Your task to perform on an android device: What's the weather? Image 0: 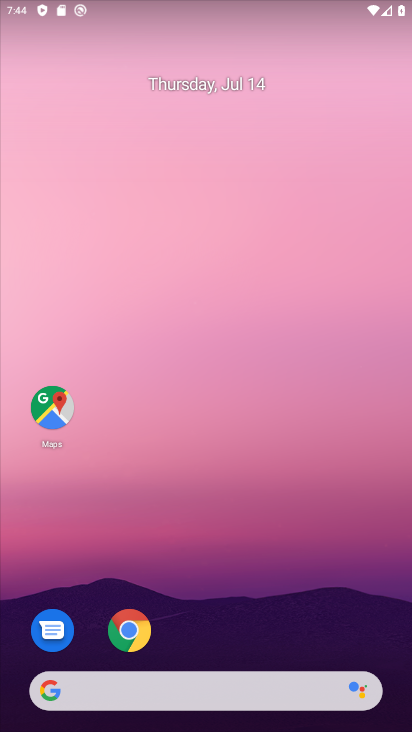
Step 0: drag from (223, 670) to (145, 117)
Your task to perform on an android device: What's the weather? Image 1: 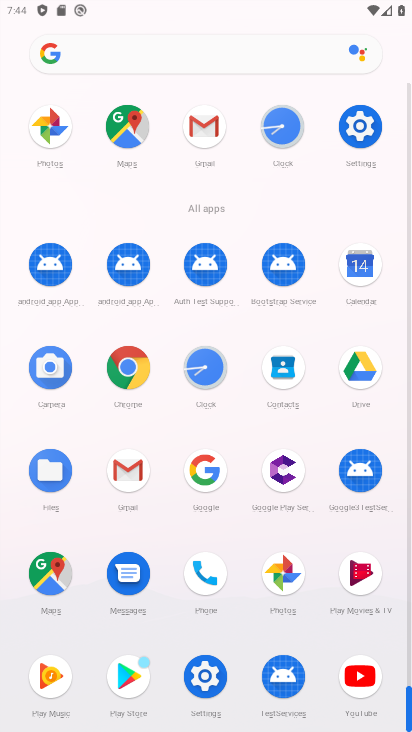
Step 1: click (122, 373)
Your task to perform on an android device: What's the weather? Image 2: 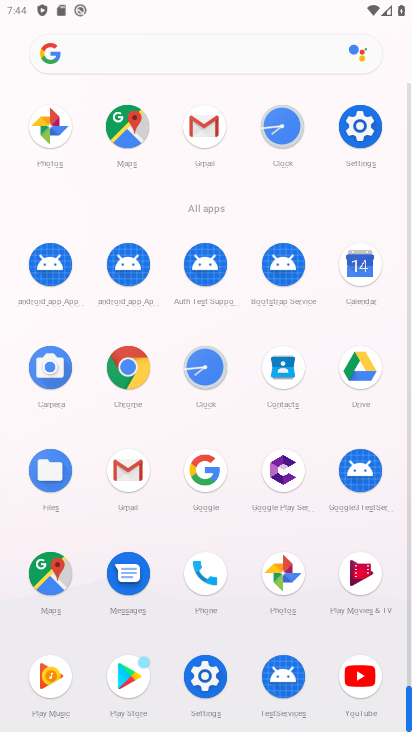
Step 2: click (130, 375)
Your task to perform on an android device: What's the weather? Image 3: 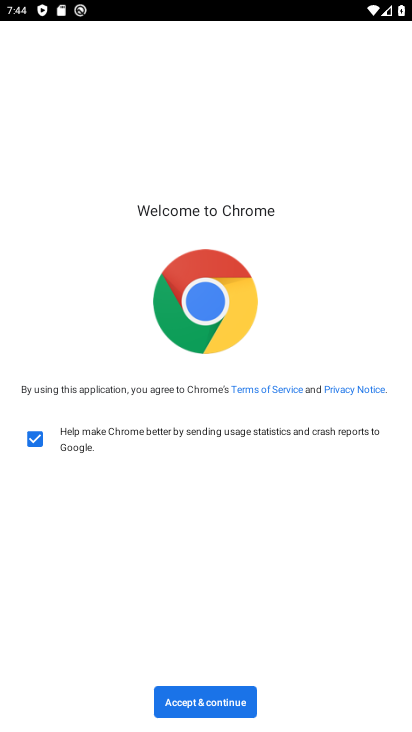
Step 3: click (219, 701)
Your task to perform on an android device: What's the weather? Image 4: 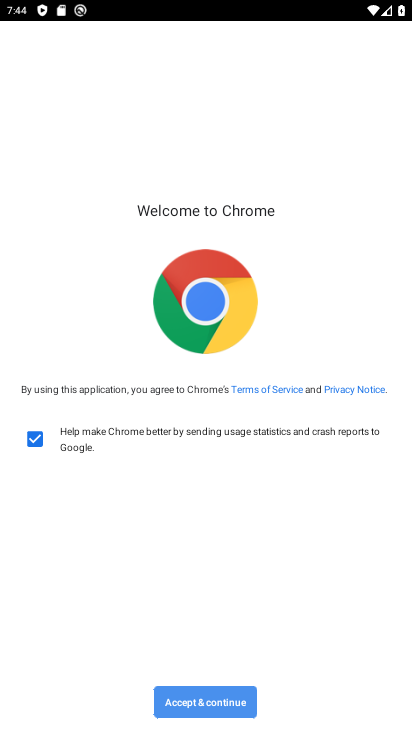
Step 4: click (227, 708)
Your task to perform on an android device: What's the weather? Image 5: 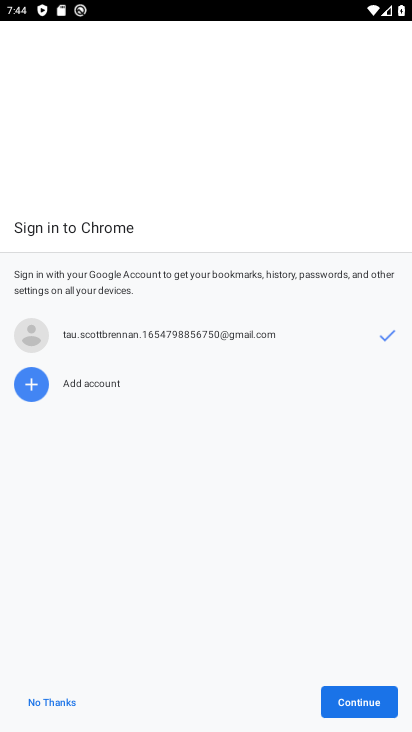
Step 5: click (227, 708)
Your task to perform on an android device: What's the weather? Image 6: 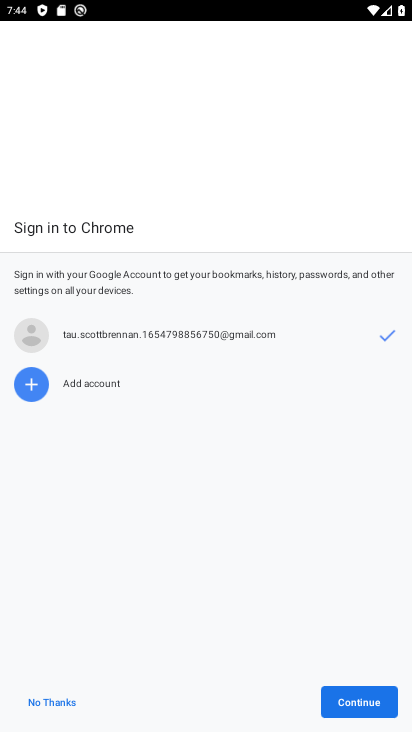
Step 6: click (359, 702)
Your task to perform on an android device: What's the weather? Image 7: 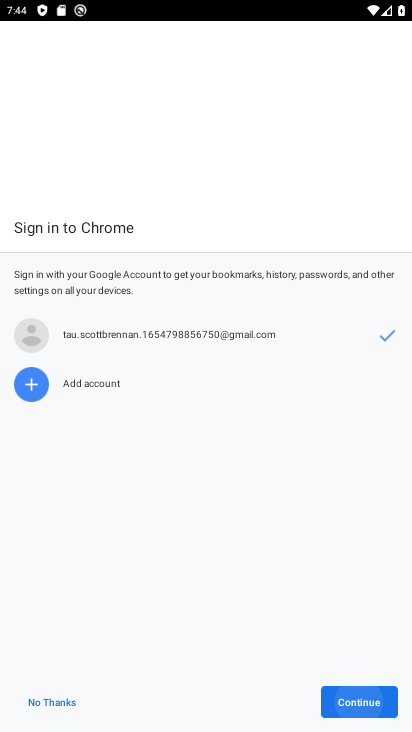
Step 7: click (360, 702)
Your task to perform on an android device: What's the weather? Image 8: 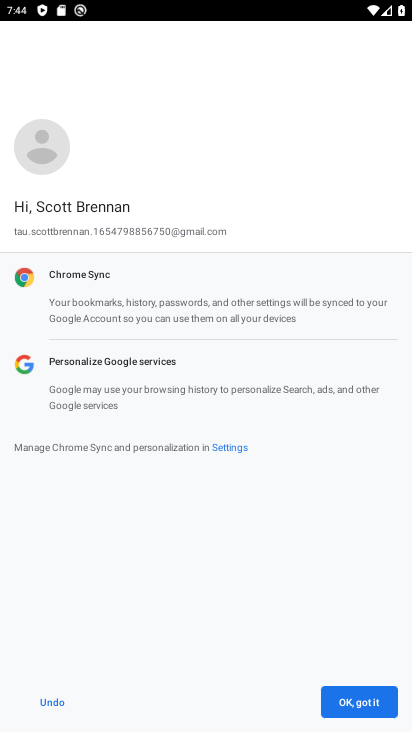
Step 8: click (360, 702)
Your task to perform on an android device: What's the weather? Image 9: 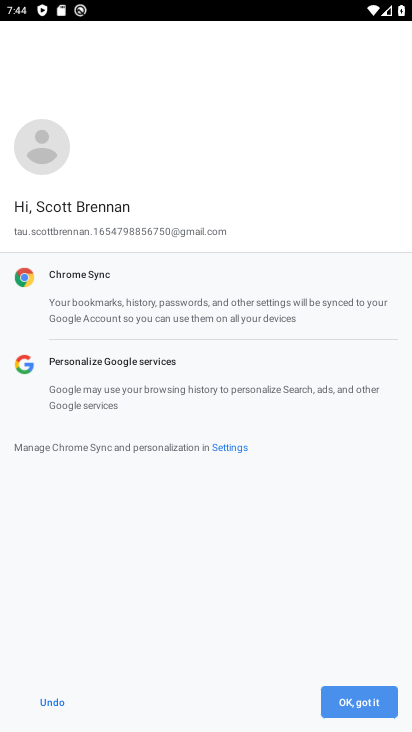
Step 9: click (361, 702)
Your task to perform on an android device: What's the weather? Image 10: 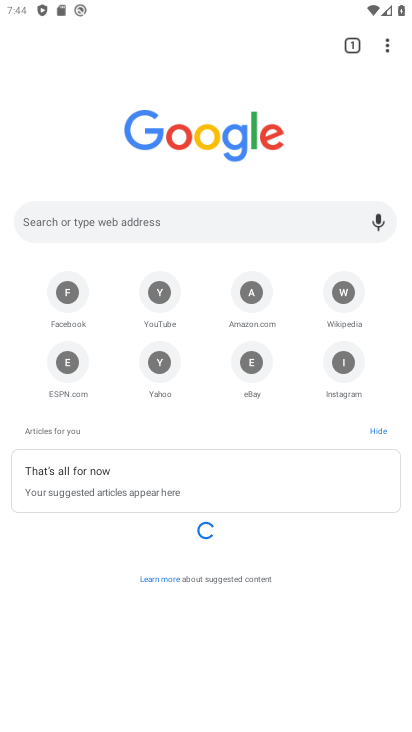
Step 10: click (157, 218)
Your task to perform on an android device: What's the weather? Image 11: 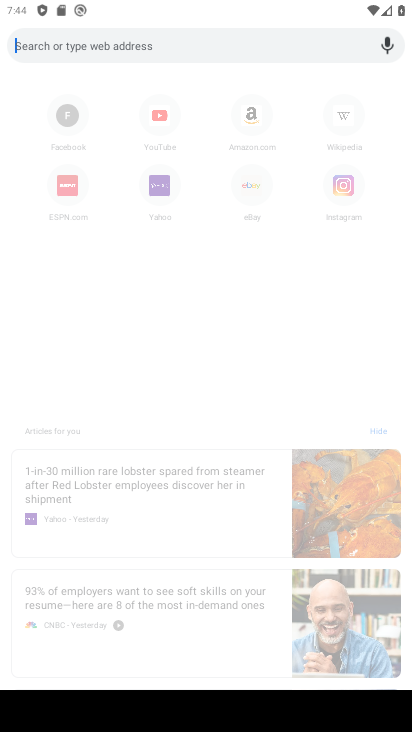
Step 11: type "weather today"
Your task to perform on an android device: What's the weather? Image 12: 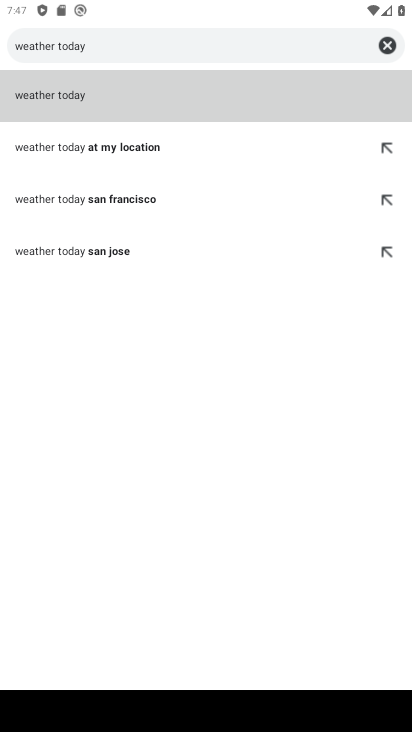
Step 12: click (164, 75)
Your task to perform on an android device: What's the weather? Image 13: 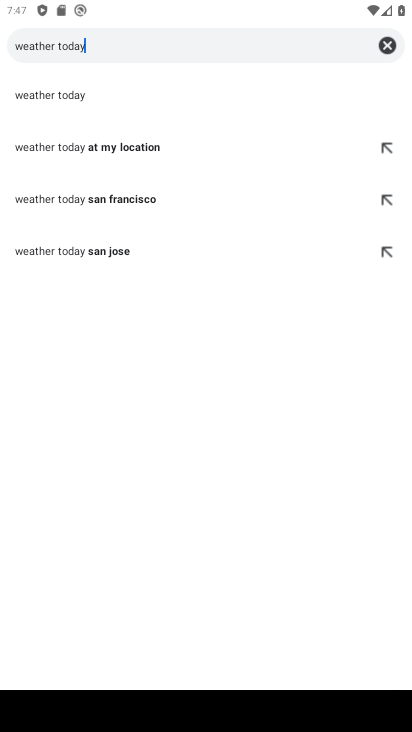
Step 13: click (164, 93)
Your task to perform on an android device: What's the weather? Image 14: 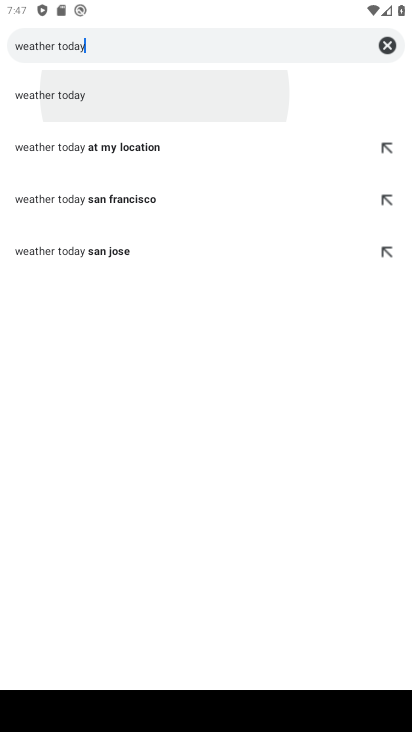
Step 14: click (164, 94)
Your task to perform on an android device: What's the weather? Image 15: 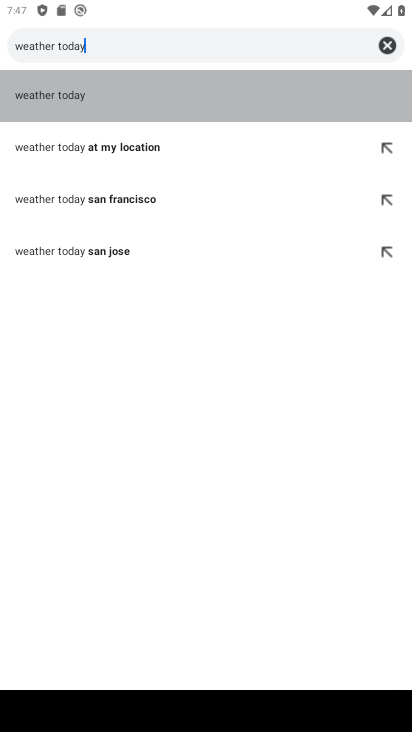
Step 15: click (165, 97)
Your task to perform on an android device: What's the weather? Image 16: 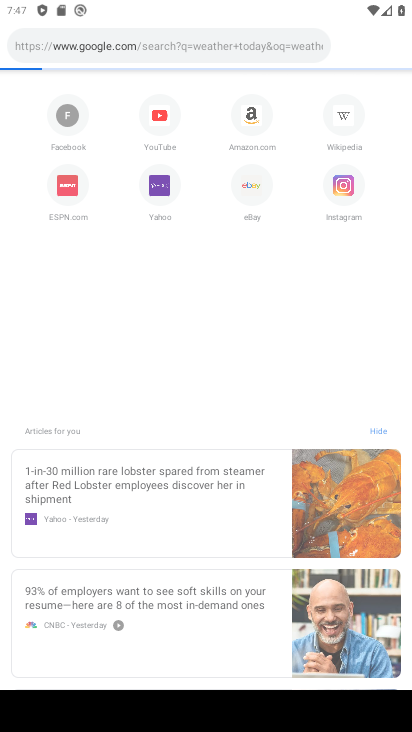
Step 16: click (165, 97)
Your task to perform on an android device: What's the weather? Image 17: 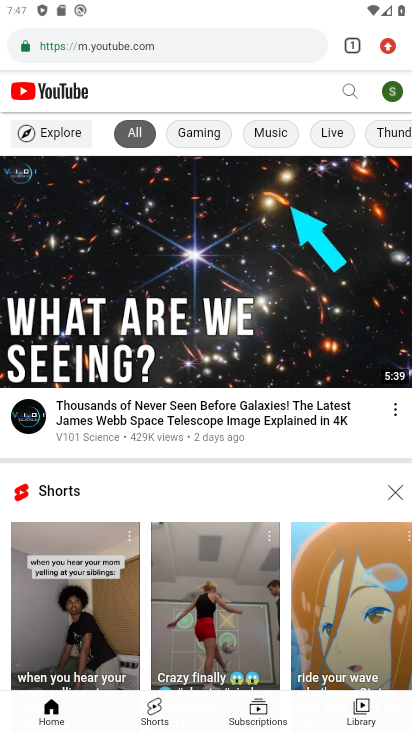
Step 17: task complete